Your task to perform on an android device: add a label to a message in the gmail app Image 0: 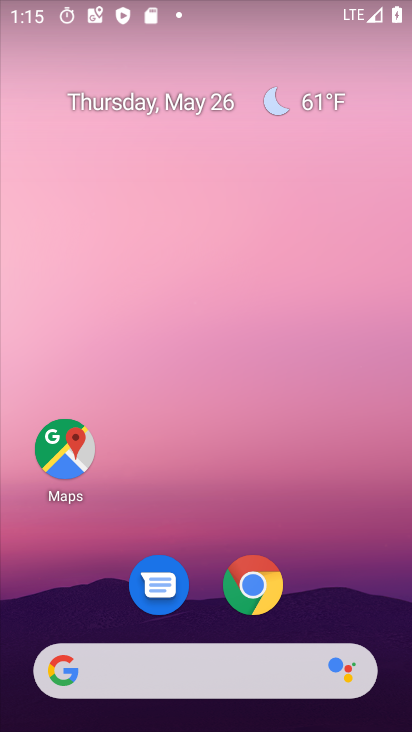
Step 0: drag from (215, 521) to (188, 85)
Your task to perform on an android device: add a label to a message in the gmail app Image 1: 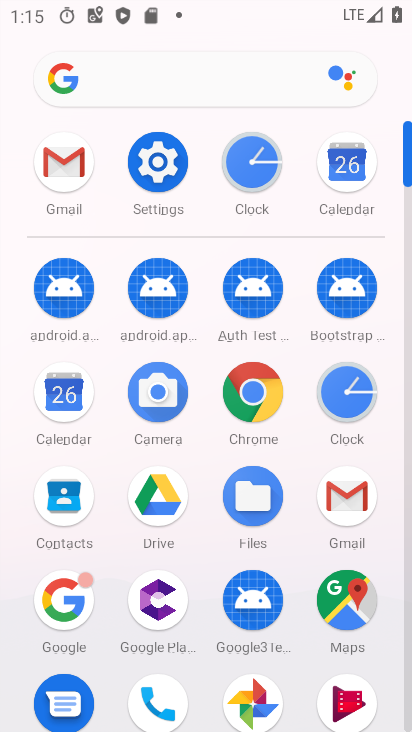
Step 1: click (68, 167)
Your task to perform on an android device: add a label to a message in the gmail app Image 2: 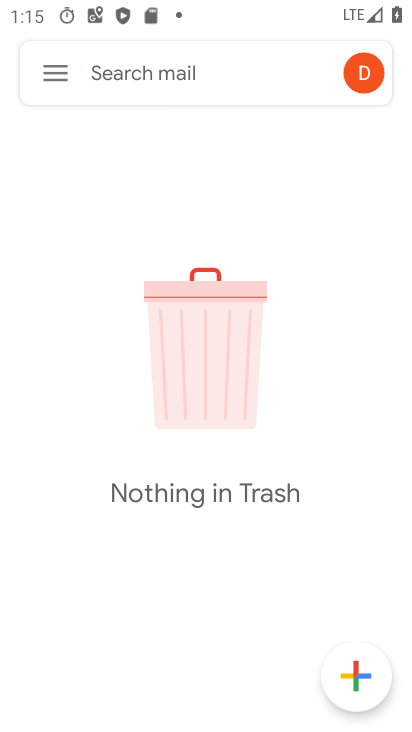
Step 2: click (54, 67)
Your task to perform on an android device: add a label to a message in the gmail app Image 3: 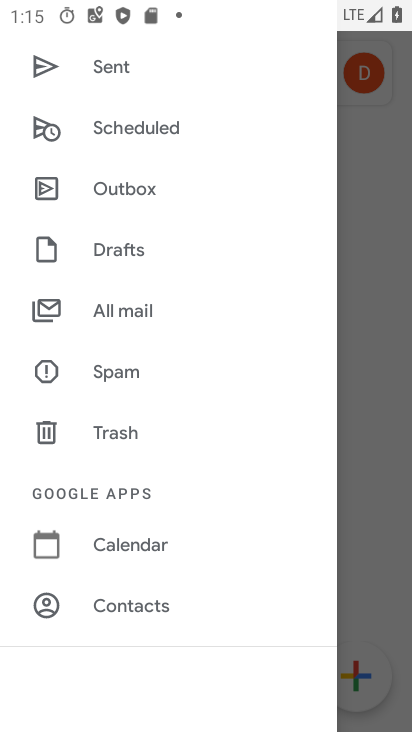
Step 3: click (103, 300)
Your task to perform on an android device: add a label to a message in the gmail app Image 4: 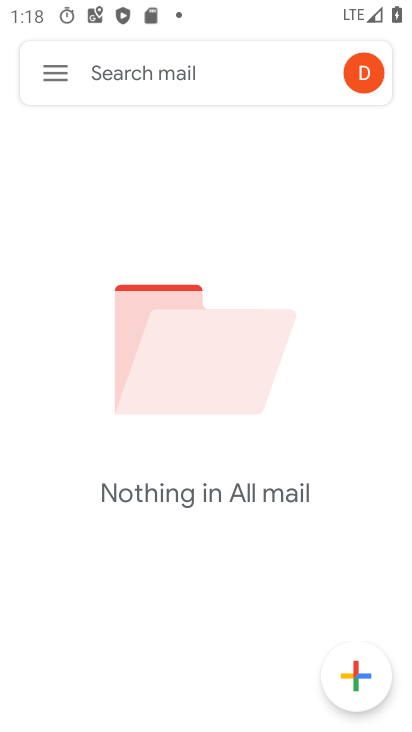
Step 4: task complete